Your task to perform on an android device: change the clock display to analog Image 0: 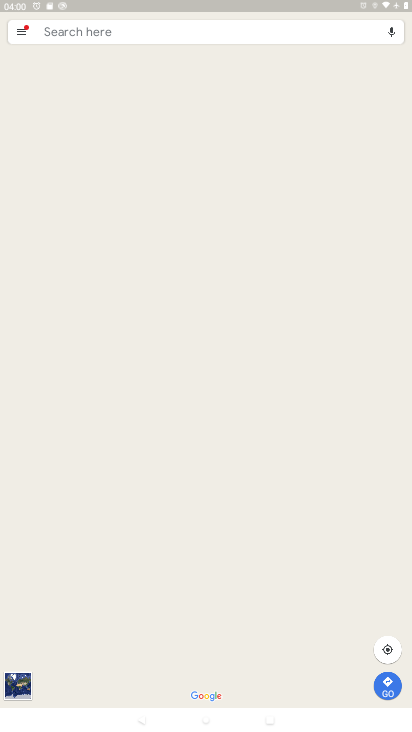
Step 0: press home button
Your task to perform on an android device: change the clock display to analog Image 1: 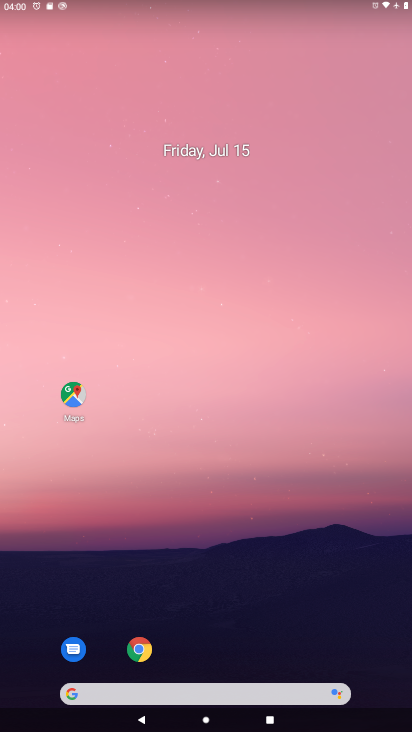
Step 1: drag from (366, 638) to (315, 53)
Your task to perform on an android device: change the clock display to analog Image 2: 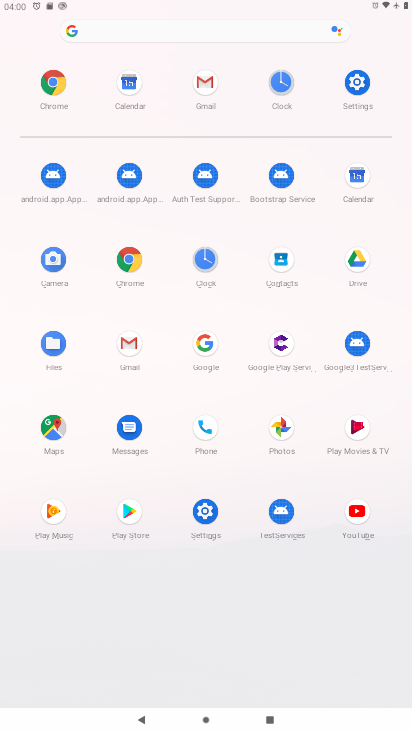
Step 2: click (202, 260)
Your task to perform on an android device: change the clock display to analog Image 3: 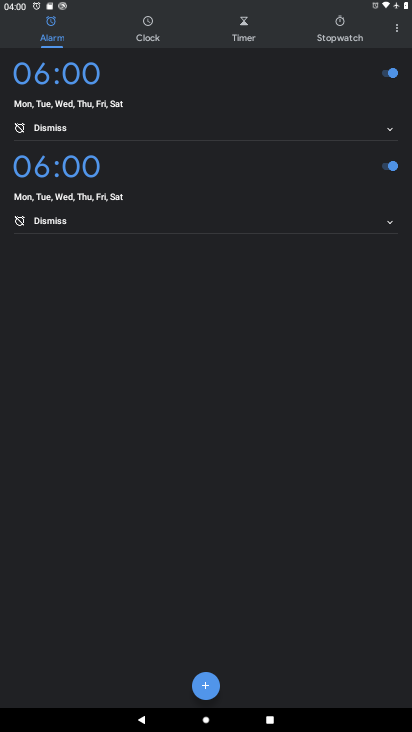
Step 3: click (395, 35)
Your task to perform on an android device: change the clock display to analog Image 4: 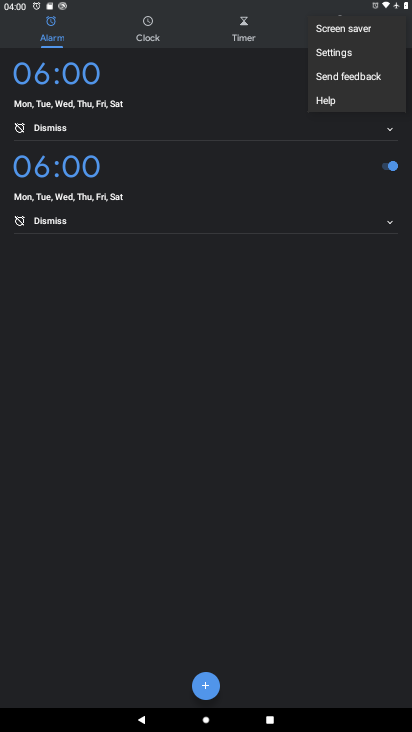
Step 4: click (332, 55)
Your task to perform on an android device: change the clock display to analog Image 5: 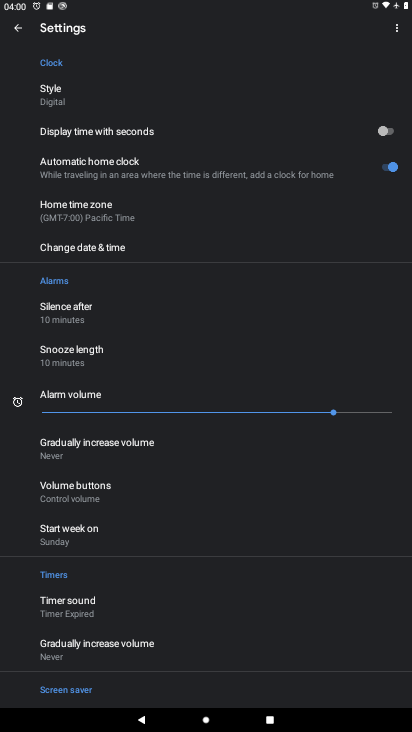
Step 5: click (45, 93)
Your task to perform on an android device: change the clock display to analog Image 6: 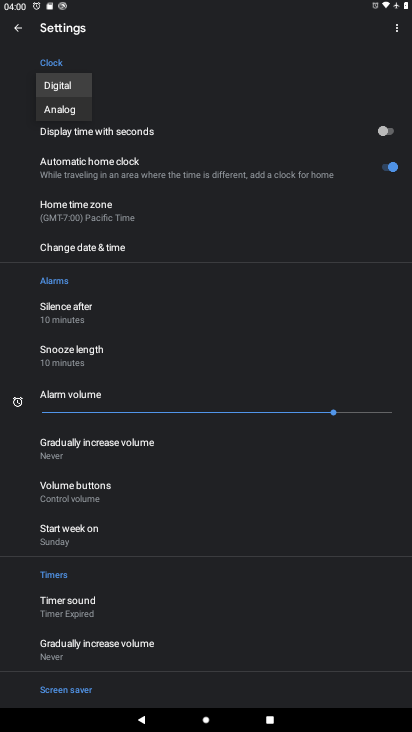
Step 6: click (62, 106)
Your task to perform on an android device: change the clock display to analog Image 7: 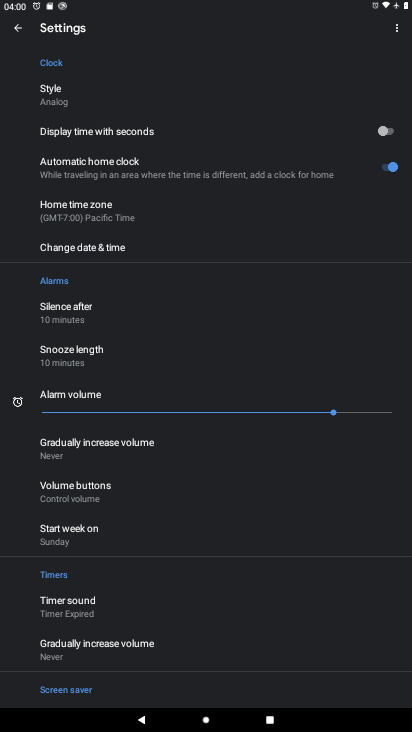
Step 7: task complete